Your task to perform on an android device: Open eBay Image 0: 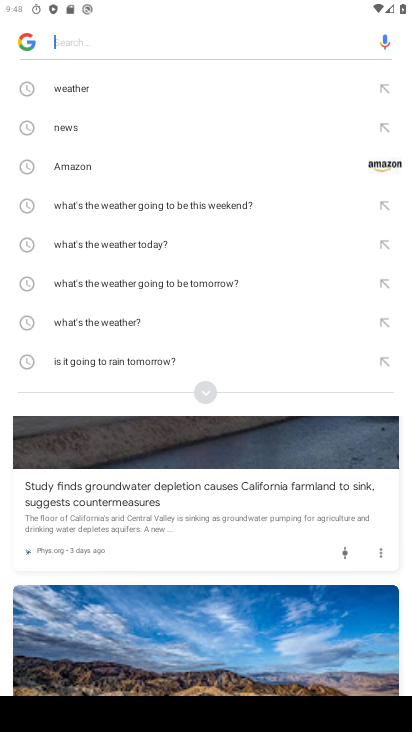
Step 0: type "eBay"
Your task to perform on an android device: Open eBay Image 1: 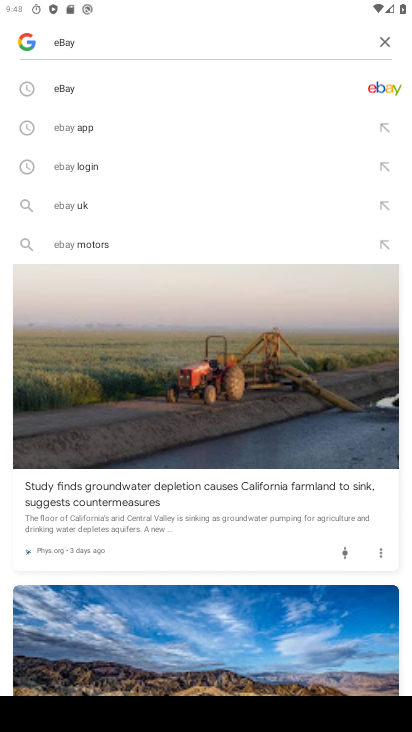
Step 1: click (169, 81)
Your task to perform on an android device: Open eBay Image 2: 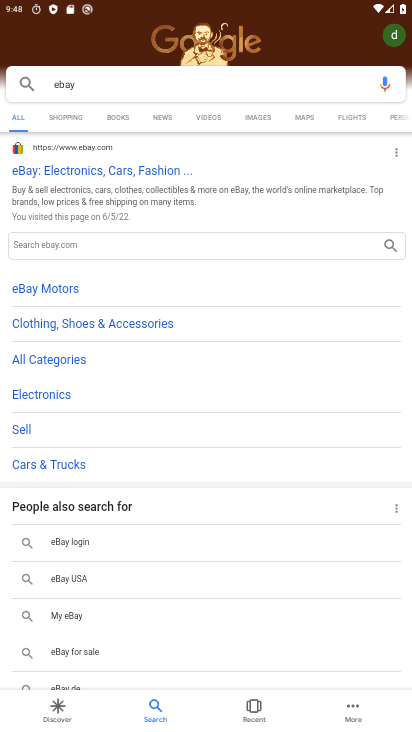
Step 2: click (104, 171)
Your task to perform on an android device: Open eBay Image 3: 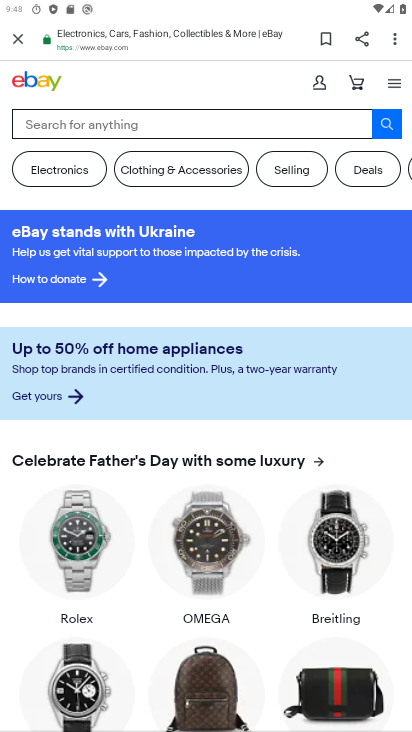
Step 3: task complete